Your task to perform on an android device: remove spam from my inbox in the gmail app Image 0: 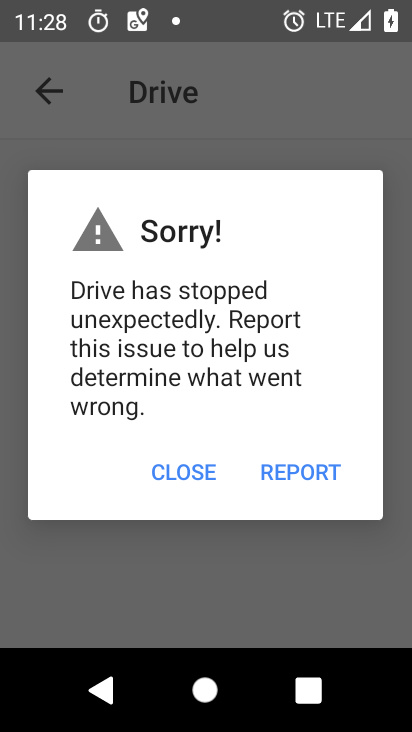
Step 0: press home button
Your task to perform on an android device: remove spam from my inbox in the gmail app Image 1: 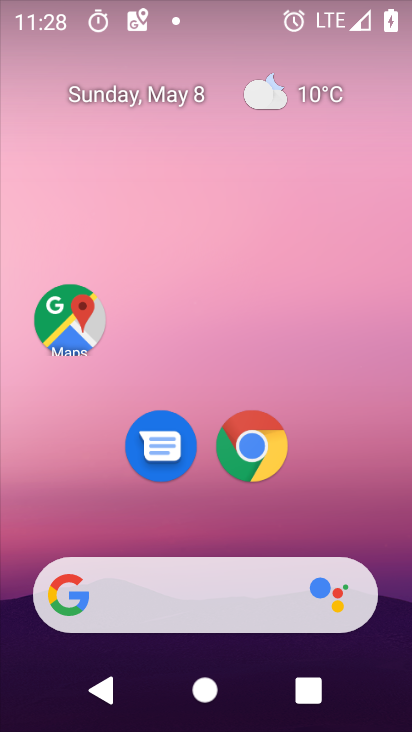
Step 1: drag from (379, 542) to (346, 10)
Your task to perform on an android device: remove spam from my inbox in the gmail app Image 2: 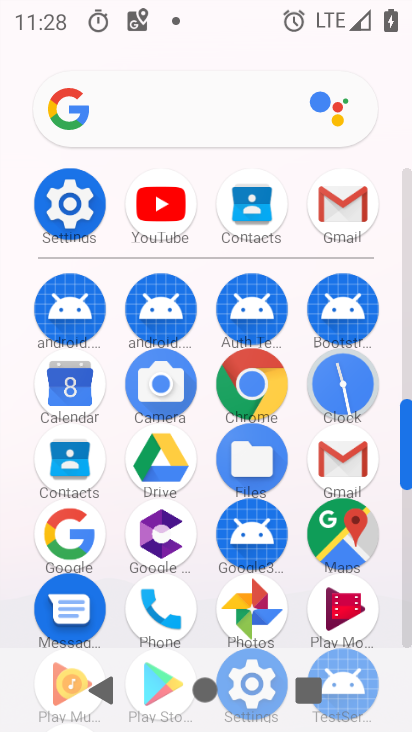
Step 2: click (340, 211)
Your task to perform on an android device: remove spam from my inbox in the gmail app Image 3: 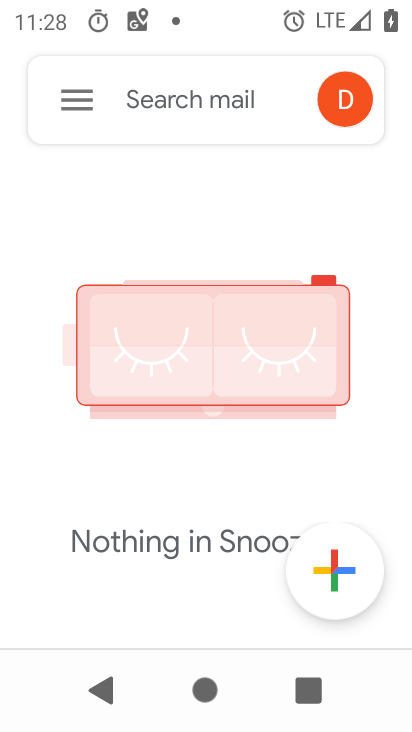
Step 3: click (75, 109)
Your task to perform on an android device: remove spam from my inbox in the gmail app Image 4: 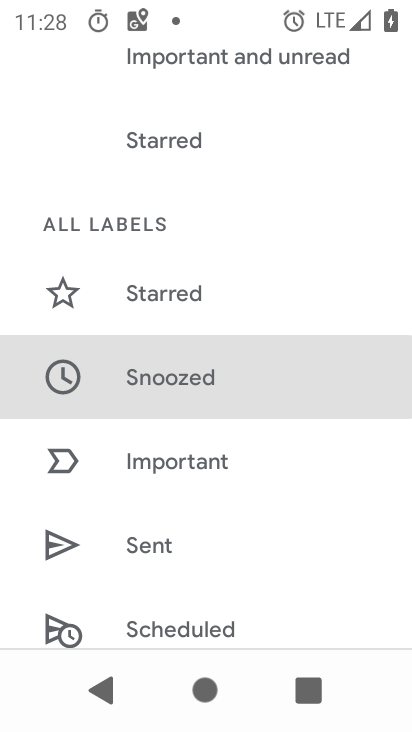
Step 4: drag from (231, 501) to (245, 165)
Your task to perform on an android device: remove spam from my inbox in the gmail app Image 5: 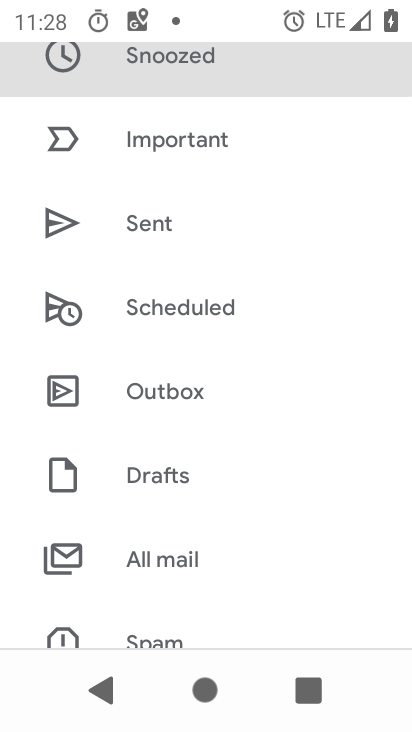
Step 5: drag from (211, 553) to (211, 200)
Your task to perform on an android device: remove spam from my inbox in the gmail app Image 6: 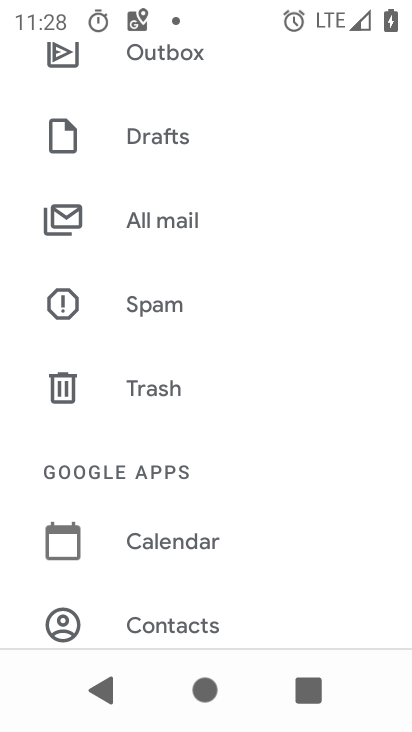
Step 6: click (135, 308)
Your task to perform on an android device: remove spam from my inbox in the gmail app Image 7: 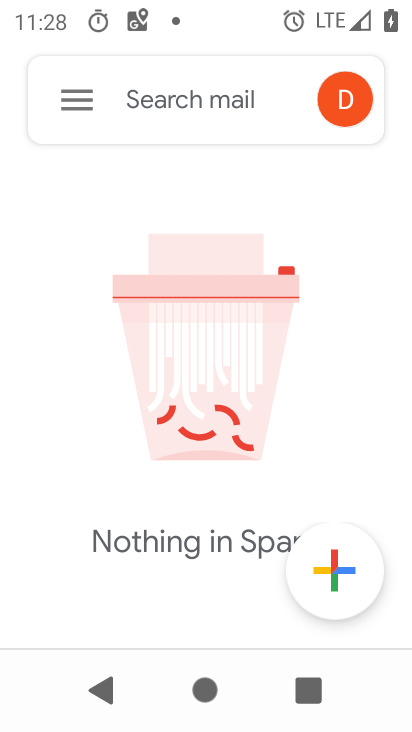
Step 7: task complete